Your task to perform on an android device: Go to eBay Image 0: 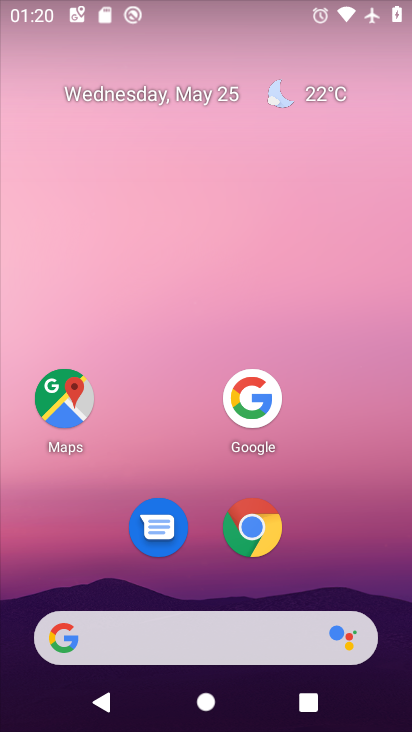
Step 0: press home button
Your task to perform on an android device: Go to eBay Image 1: 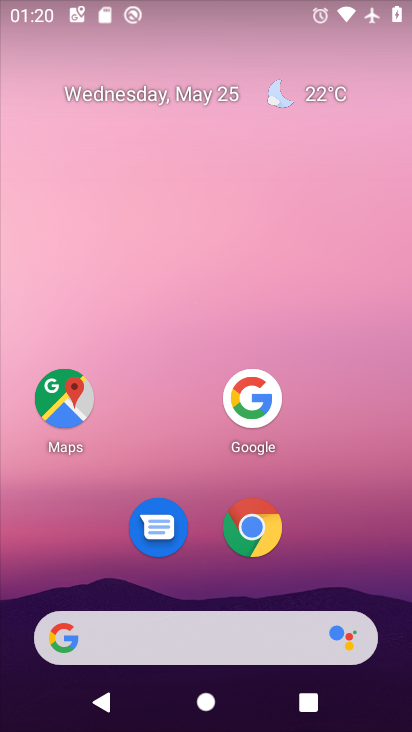
Step 1: click (247, 527)
Your task to perform on an android device: Go to eBay Image 2: 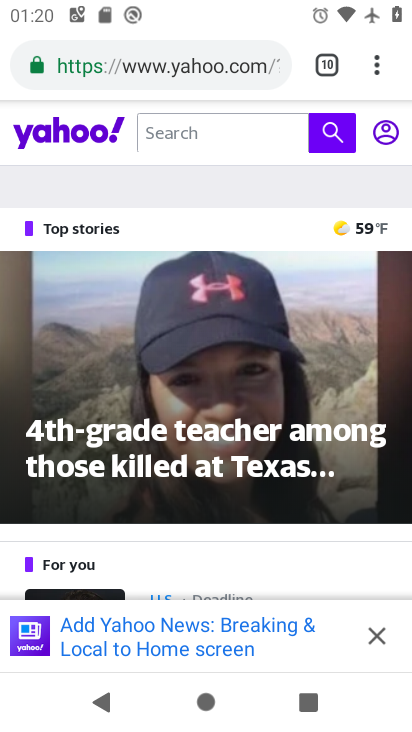
Step 2: drag from (375, 73) to (248, 141)
Your task to perform on an android device: Go to eBay Image 3: 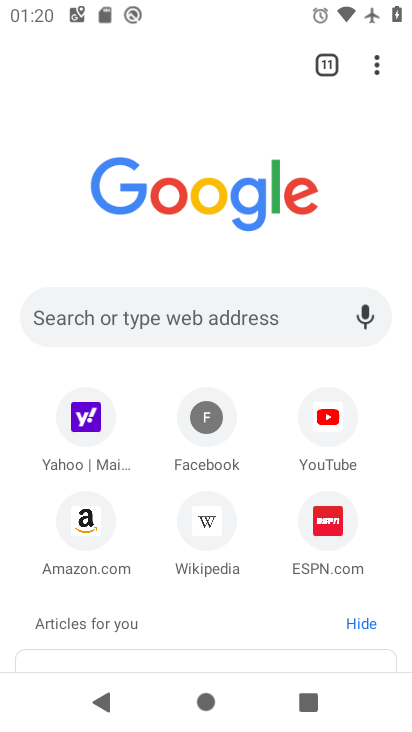
Step 3: click (126, 325)
Your task to perform on an android device: Go to eBay Image 4: 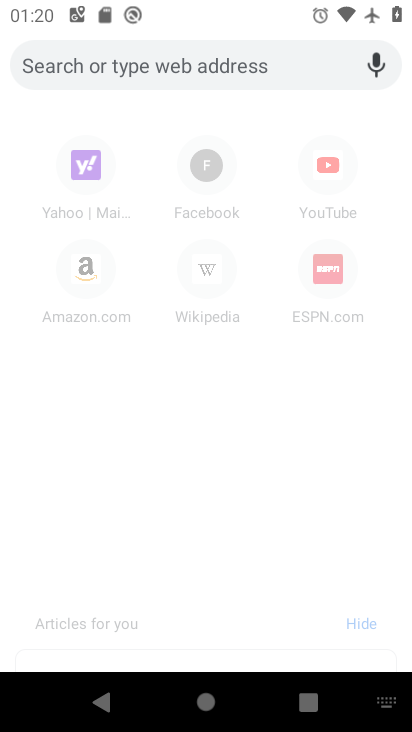
Step 4: type "ebay"
Your task to perform on an android device: Go to eBay Image 5: 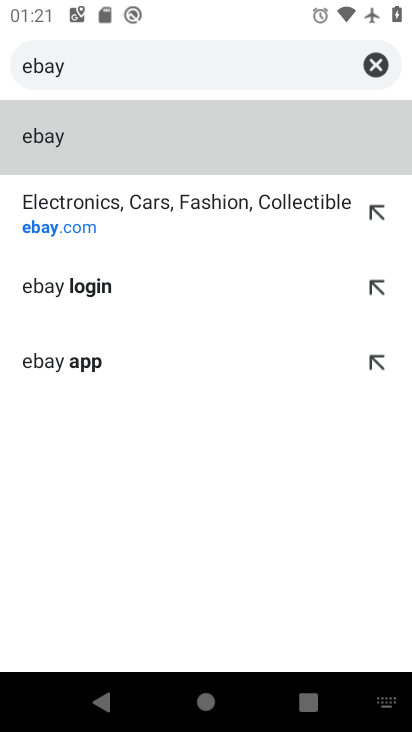
Step 5: click (177, 156)
Your task to perform on an android device: Go to eBay Image 6: 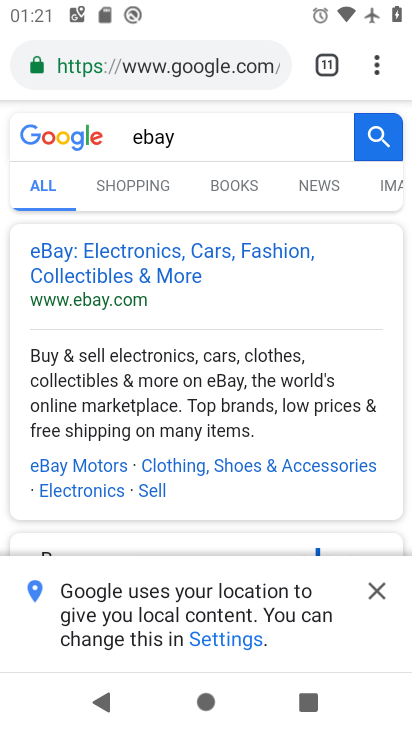
Step 6: click (151, 279)
Your task to perform on an android device: Go to eBay Image 7: 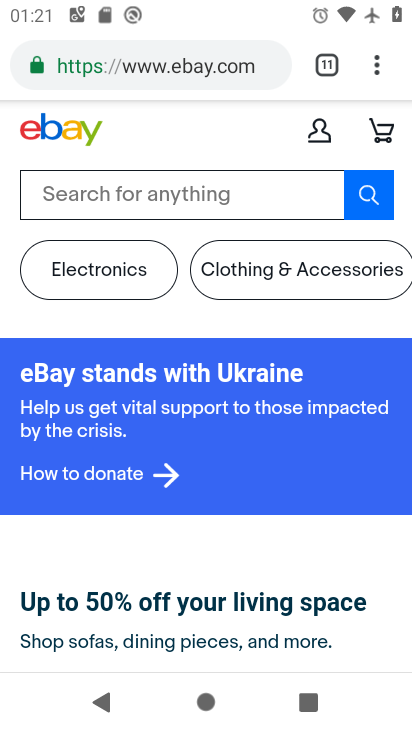
Step 7: task complete